Your task to perform on an android device: add a label to a message in the gmail app Image 0: 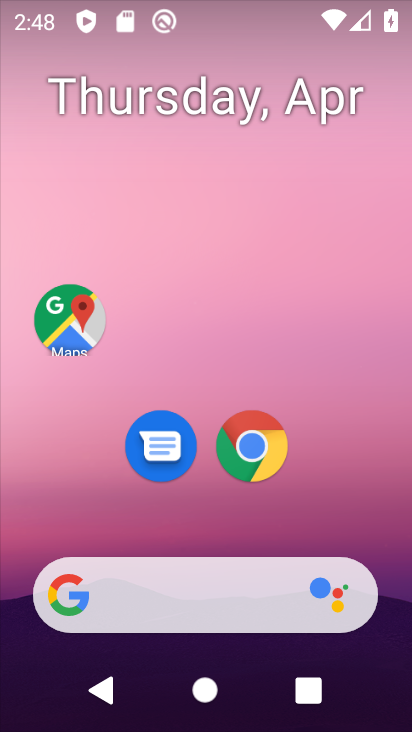
Step 0: drag from (284, 631) to (333, 173)
Your task to perform on an android device: add a label to a message in the gmail app Image 1: 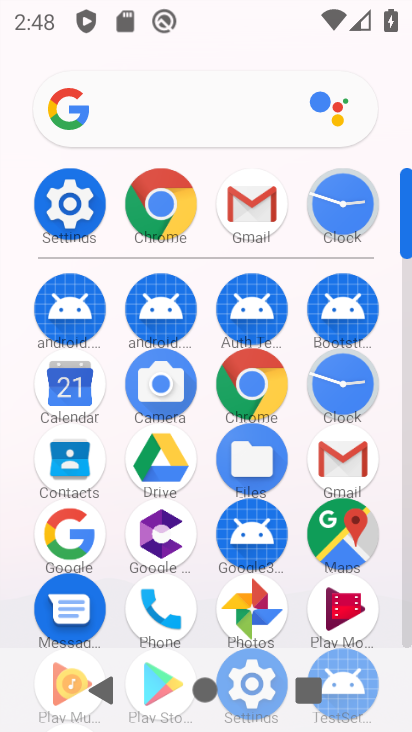
Step 1: click (336, 448)
Your task to perform on an android device: add a label to a message in the gmail app Image 2: 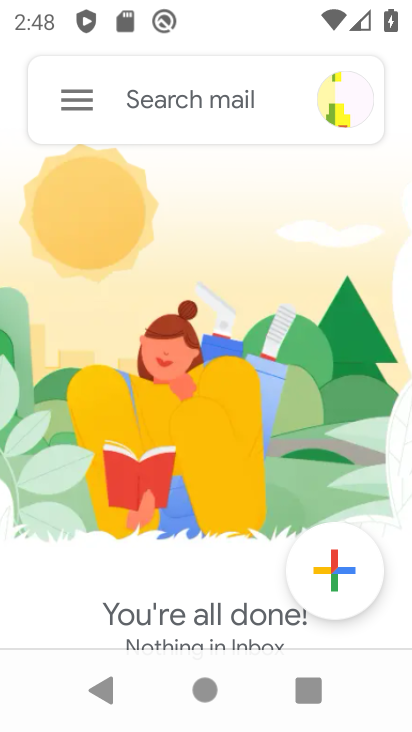
Step 2: click (67, 87)
Your task to perform on an android device: add a label to a message in the gmail app Image 3: 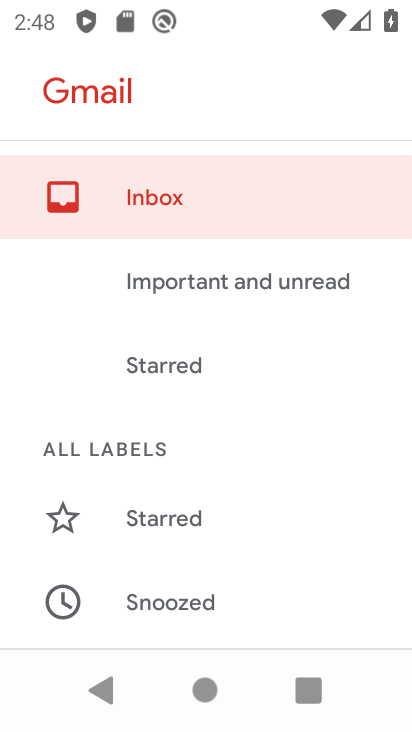
Step 3: drag from (170, 540) to (246, 207)
Your task to perform on an android device: add a label to a message in the gmail app Image 4: 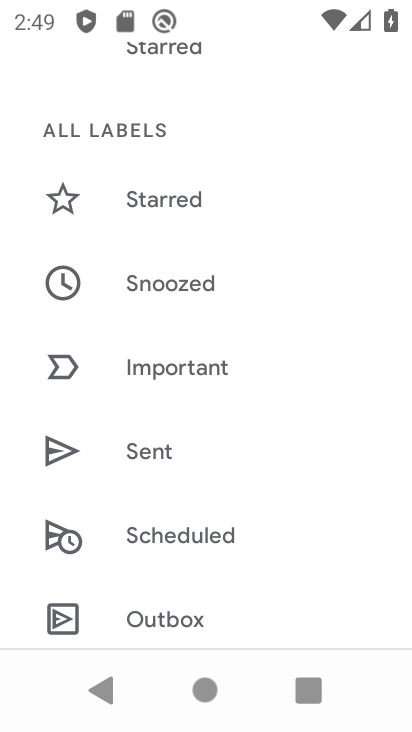
Step 4: drag from (192, 535) to (284, 199)
Your task to perform on an android device: add a label to a message in the gmail app Image 5: 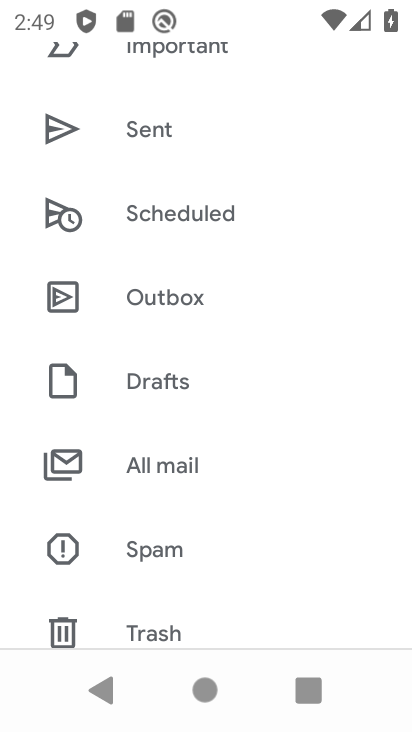
Step 5: drag from (162, 542) to (298, 247)
Your task to perform on an android device: add a label to a message in the gmail app Image 6: 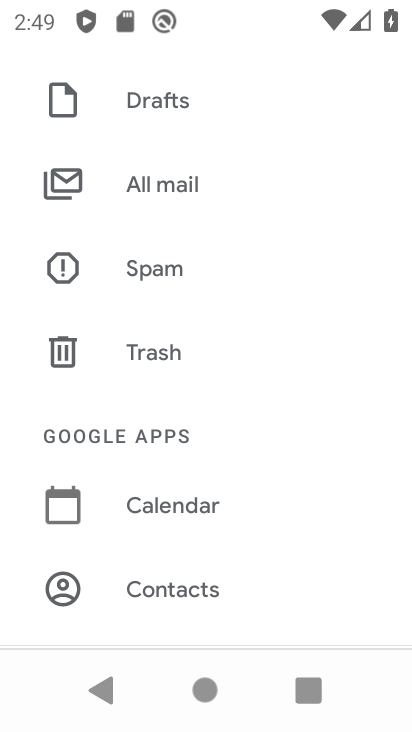
Step 6: drag from (159, 518) to (225, 392)
Your task to perform on an android device: add a label to a message in the gmail app Image 7: 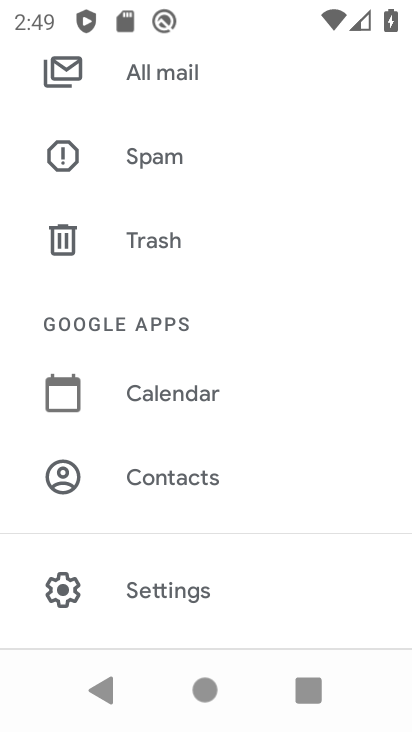
Step 7: click (147, 580)
Your task to perform on an android device: add a label to a message in the gmail app Image 8: 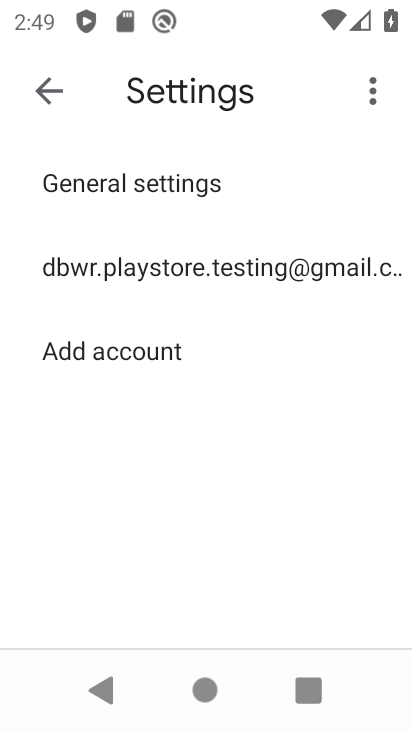
Step 8: click (187, 269)
Your task to perform on an android device: add a label to a message in the gmail app Image 9: 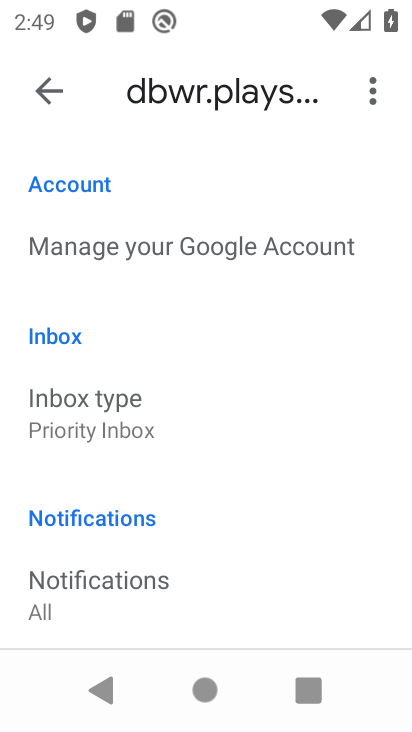
Step 9: drag from (119, 489) to (204, 240)
Your task to perform on an android device: add a label to a message in the gmail app Image 10: 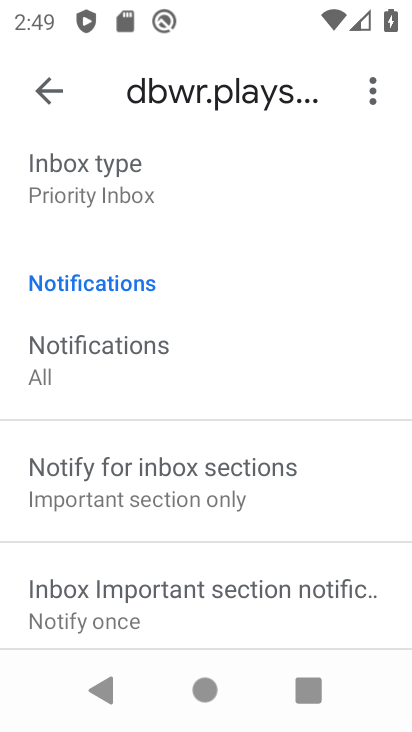
Step 10: drag from (135, 490) to (169, 281)
Your task to perform on an android device: add a label to a message in the gmail app Image 11: 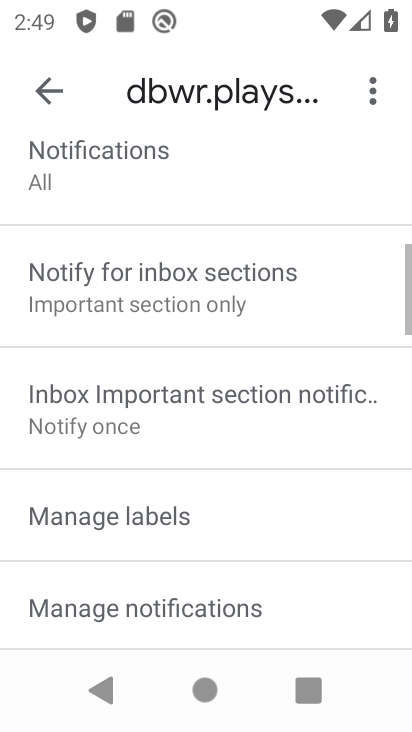
Step 11: click (122, 494)
Your task to perform on an android device: add a label to a message in the gmail app Image 12: 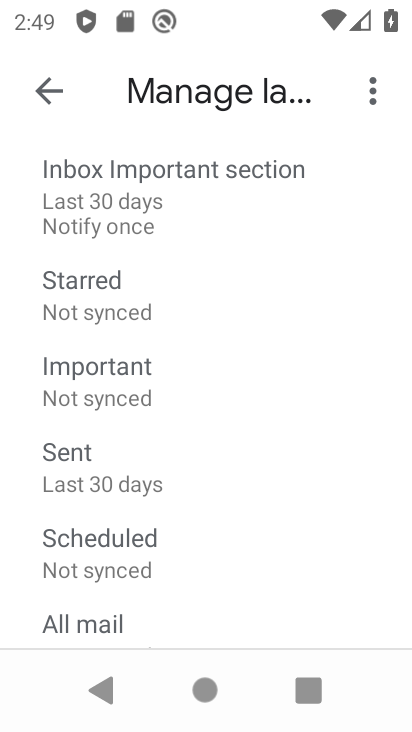
Step 12: click (153, 317)
Your task to perform on an android device: add a label to a message in the gmail app Image 13: 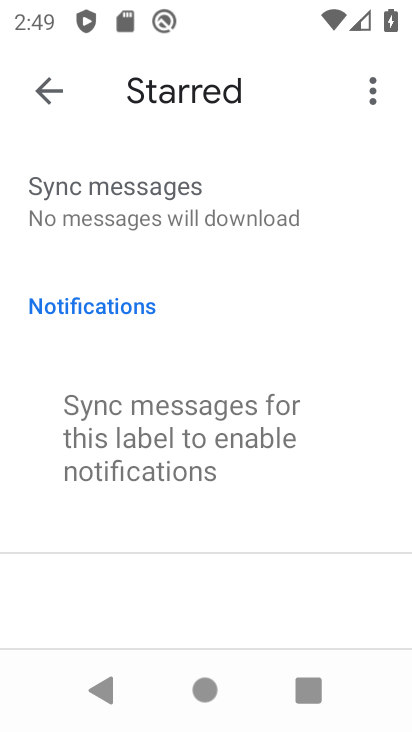
Step 13: task complete